Your task to perform on an android device: Open my contact list Image 0: 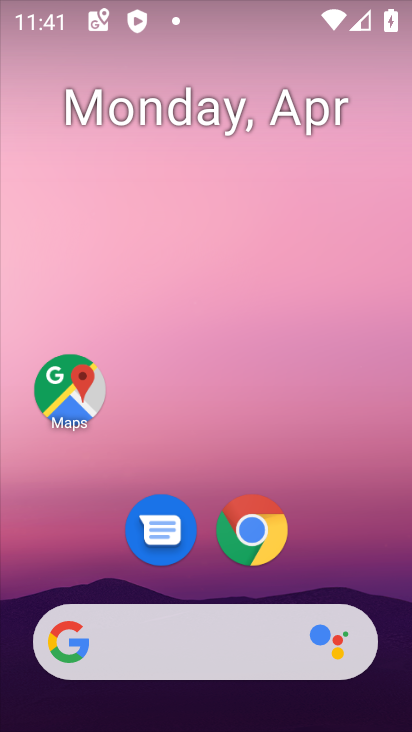
Step 0: drag from (218, 578) to (233, 108)
Your task to perform on an android device: Open my contact list Image 1: 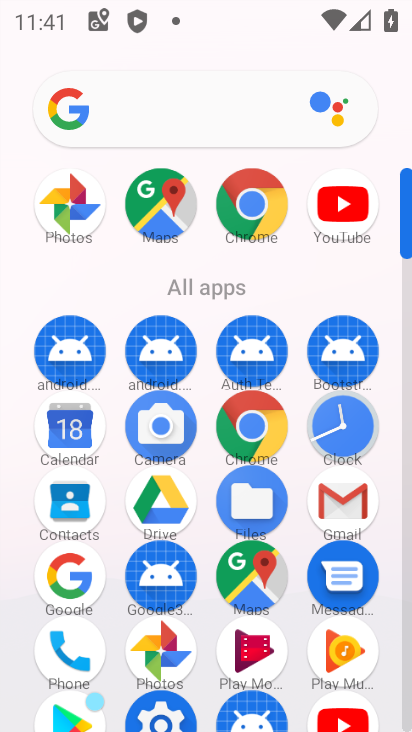
Step 1: click (73, 509)
Your task to perform on an android device: Open my contact list Image 2: 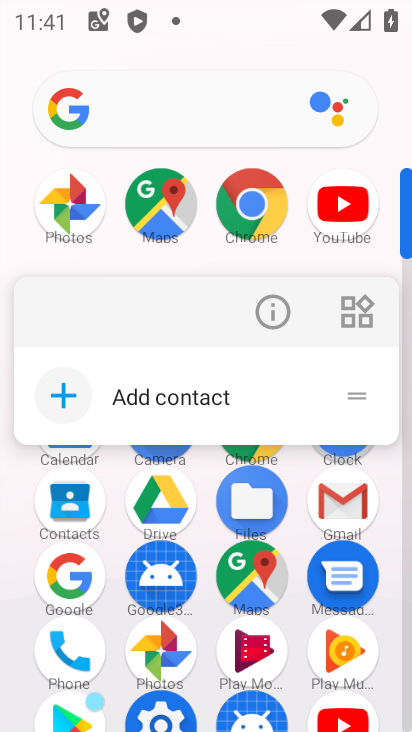
Step 2: click (70, 503)
Your task to perform on an android device: Open my contact list Image 3: 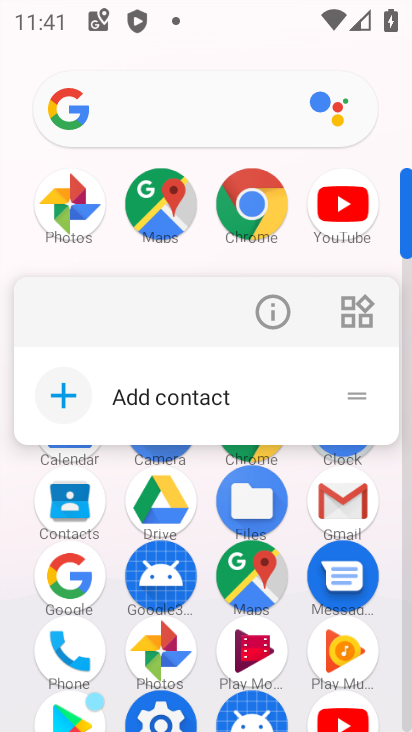
Step 3: click (55, 526)
Your task to perform on an android device: Open my contact list Image 4: 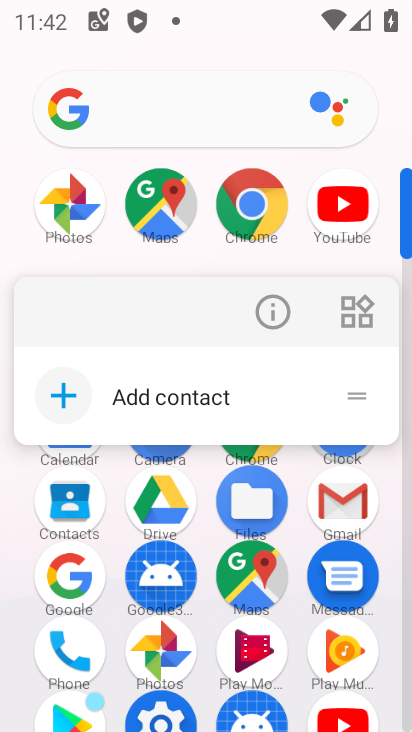
Step 4: click (77, 499)
Your task to perform on an android device: Open my contact list Image 5: 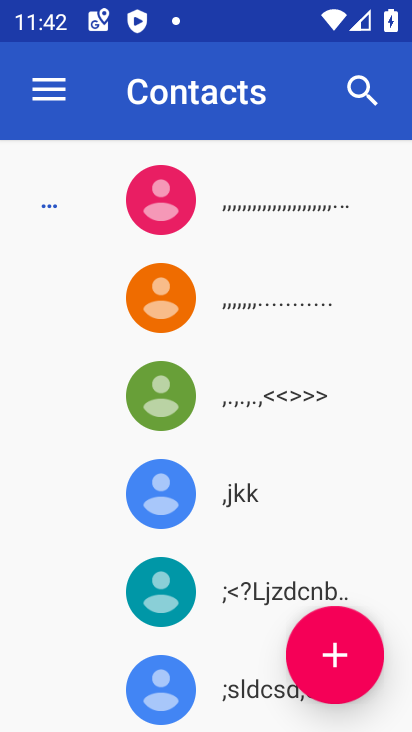
Step 5: task complete